Your task to perform on an android device: open chrome privacy settings Image 0: 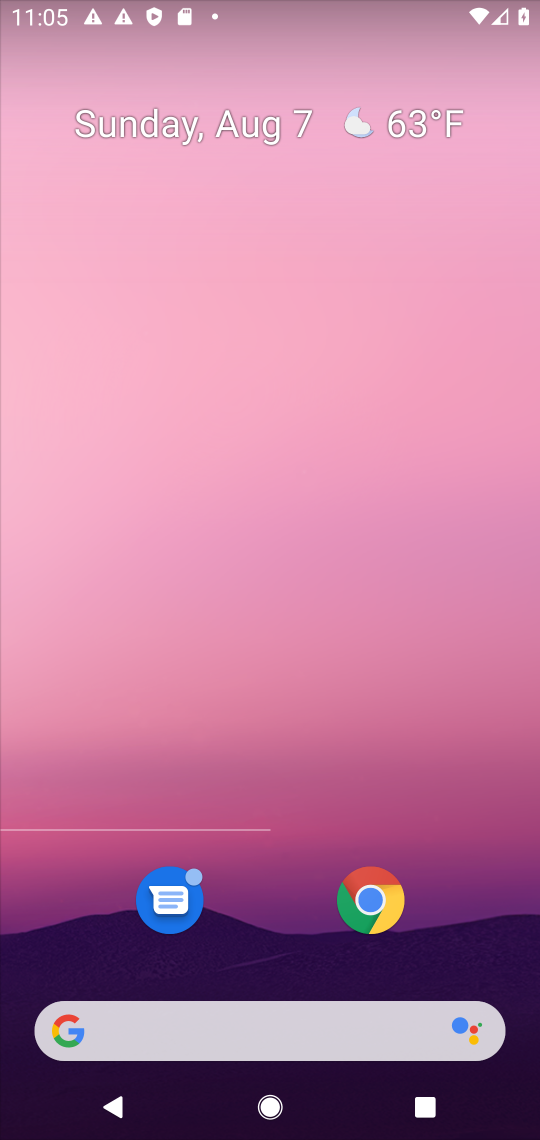
Step 0: press home button
Your task to perform on an android device: open chrome privacy settings Image 1: 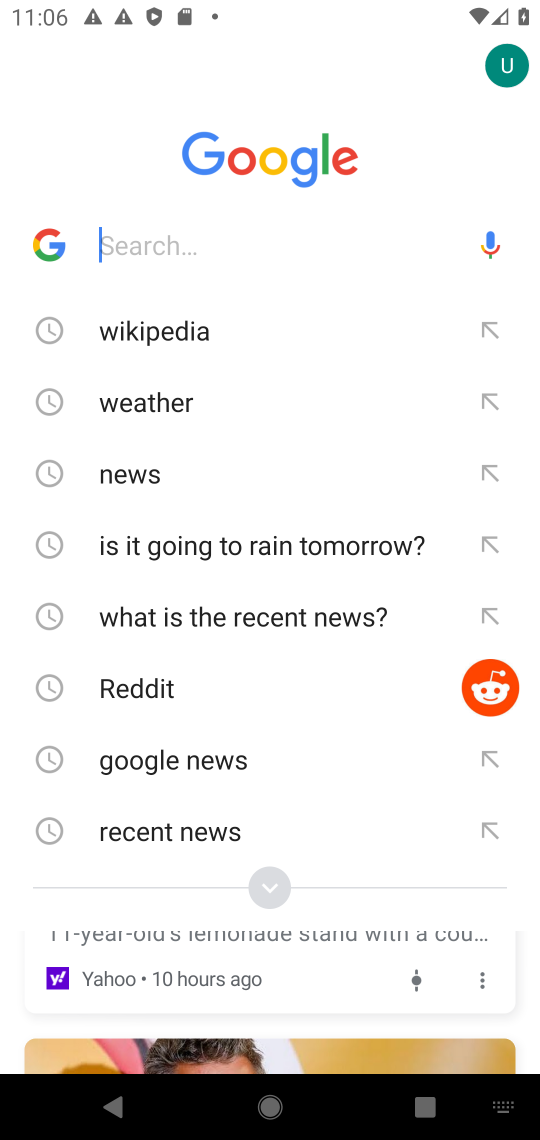
Step 1: press home button
Your task to perform on an android device: open chrome privacy settings Image 2: 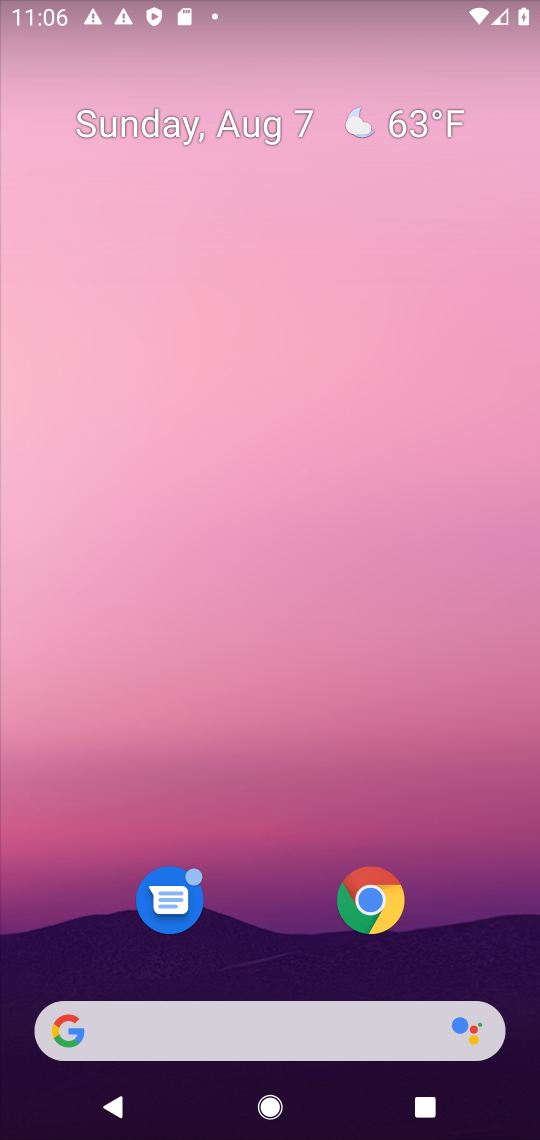
Step 2: click (371, 904)
Your task to perform on an android device: open chrome privacy settings Image 3: 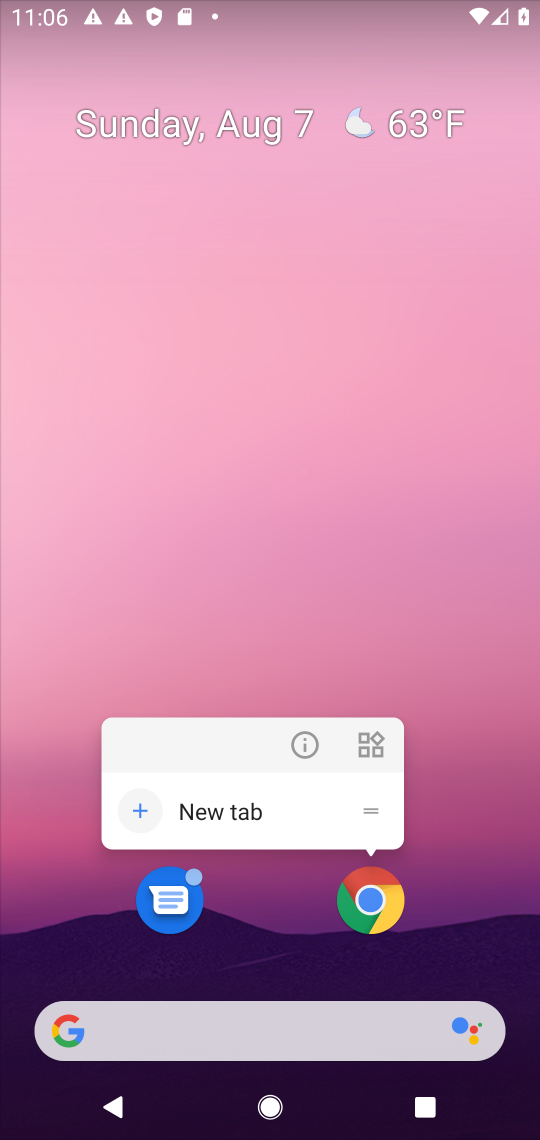
Step 3: click (431, 923)
Your task to perform on an android device: open chrome privacy settings Image 4: 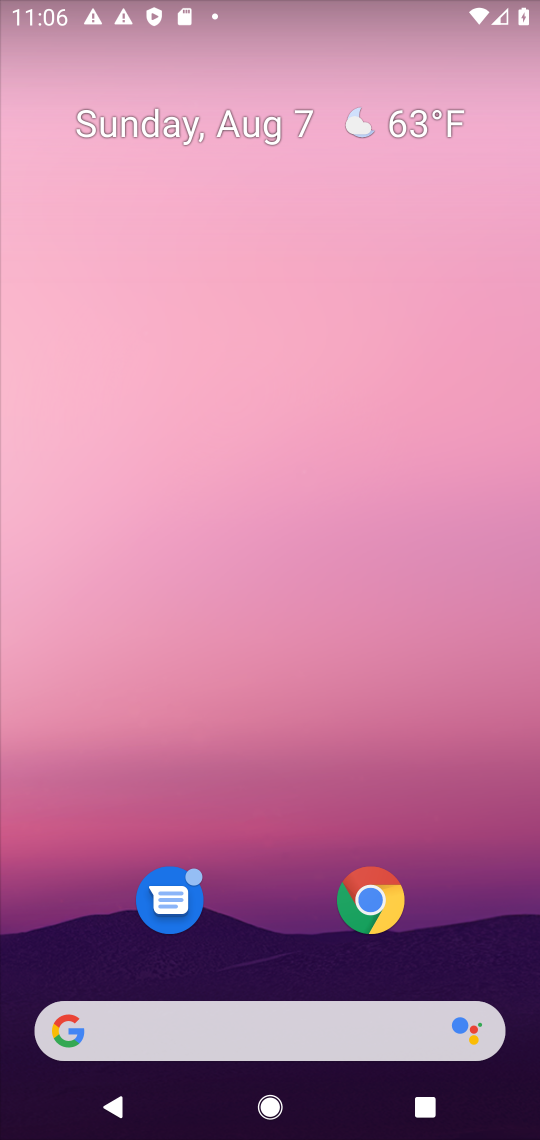
Step 4: drag from (455, 945) to (457, 192)
Your task to perform on an android device: open chrome privacy settings Image 5: 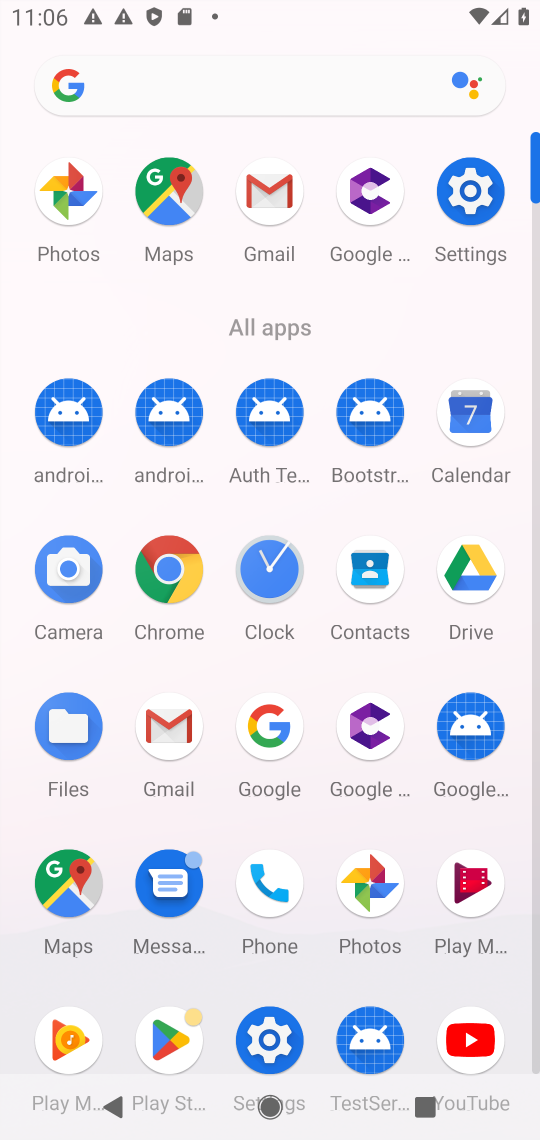
Step 5: click (164, 560)
Your task to perform on an android device: open chrome privacy settings Image 6: 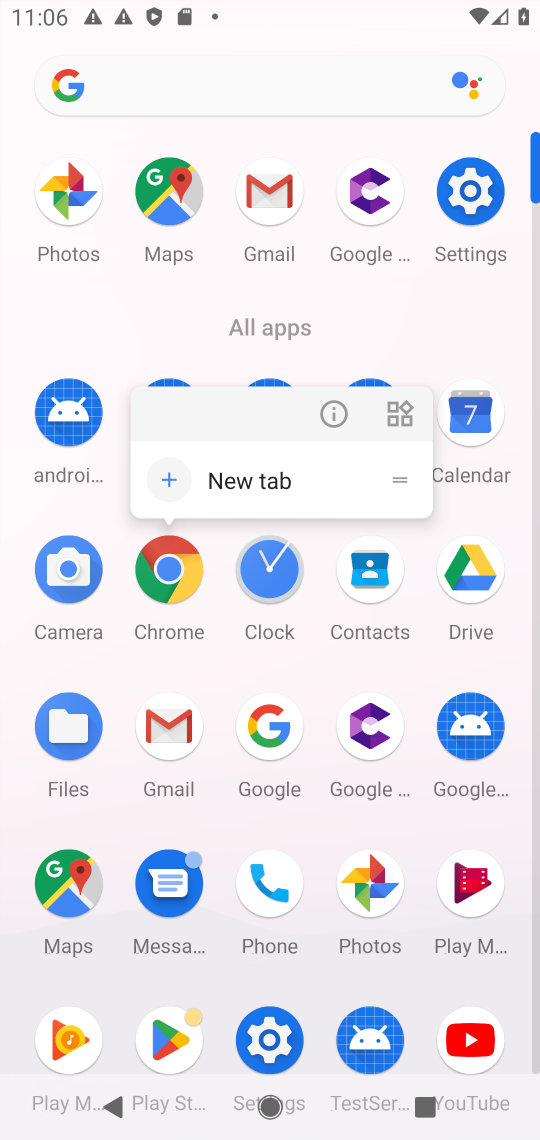
Step 6: click (167, 564)
Your task to perform on an android device: open chrome privacy settings Image 7: 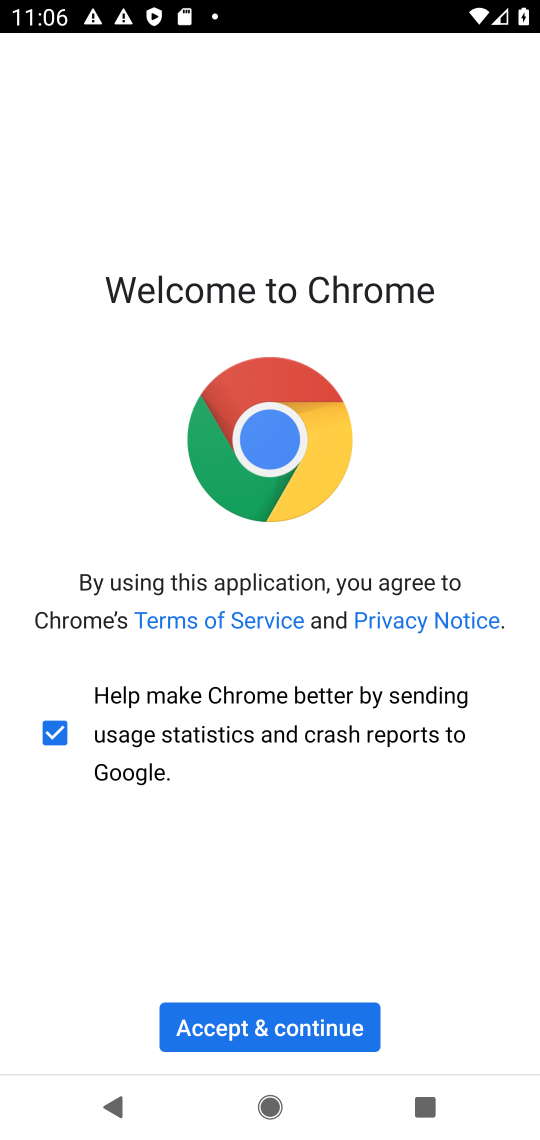
Step 7: click (262, 1024)
Your task to perform on an android device: open chrome privacy settings Image 8: 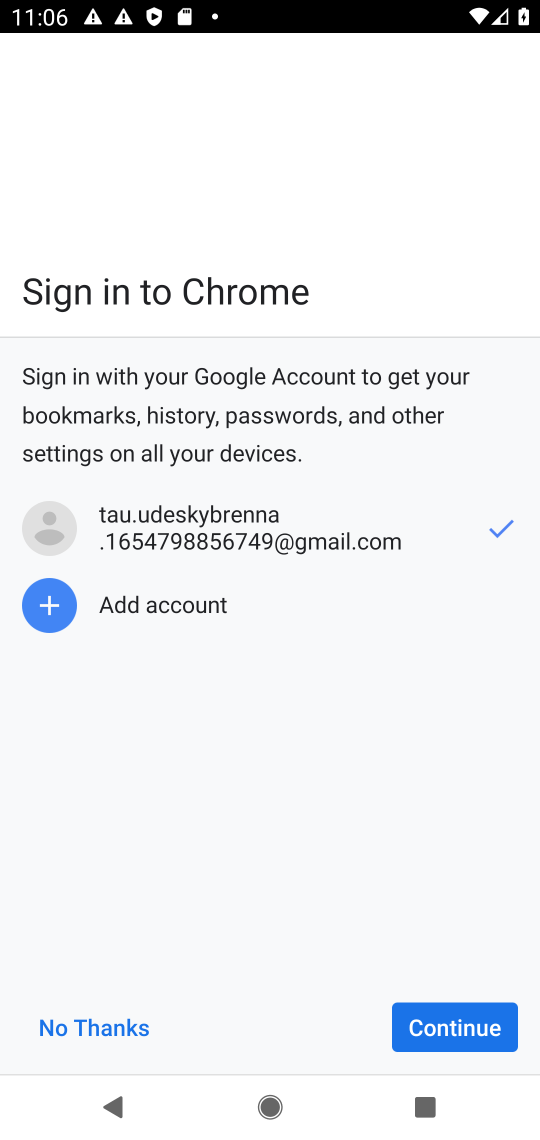
Step 8: click (467, 1023)
Your task to perform on an android device: open chrome privacy settings Image 9: 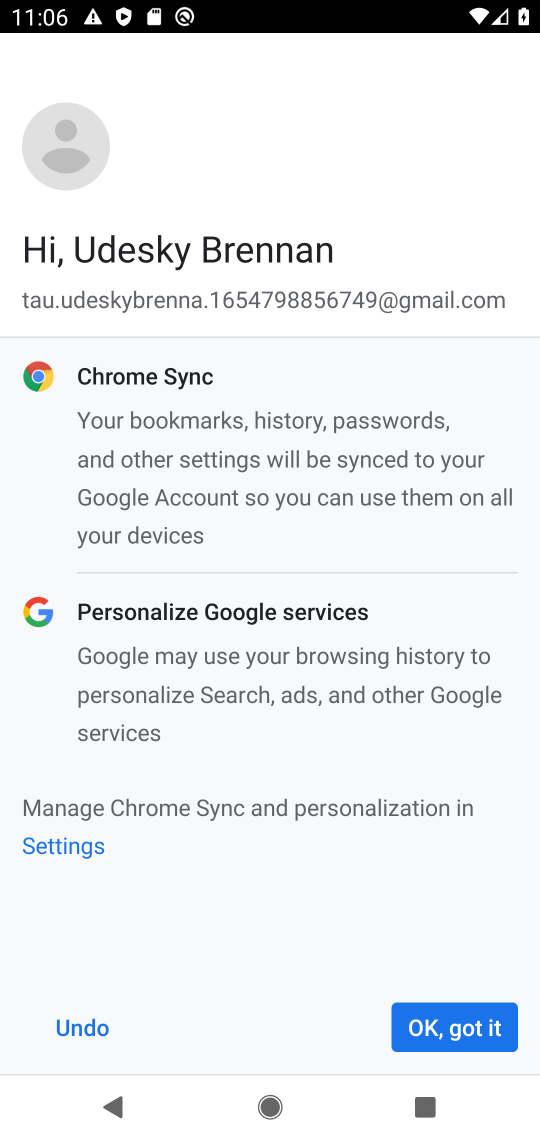
Step 9: click (460, 1028)
Your task to perform on an android device: open chrome privacy settings Image 10: 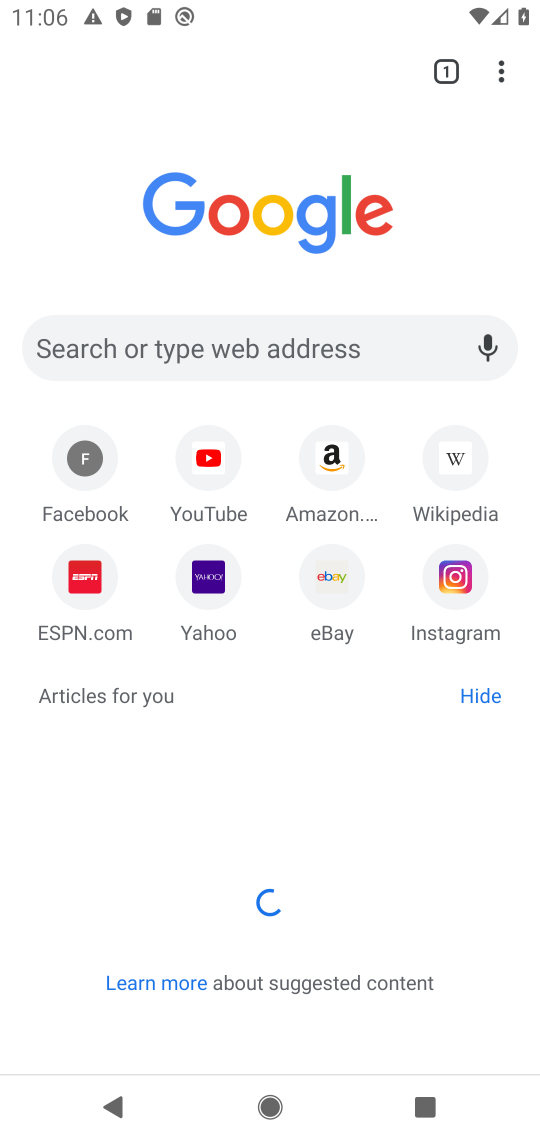
Step 10: click (499, 70)
Your task to perform on an android device: open chrome privacy settings Image 11: 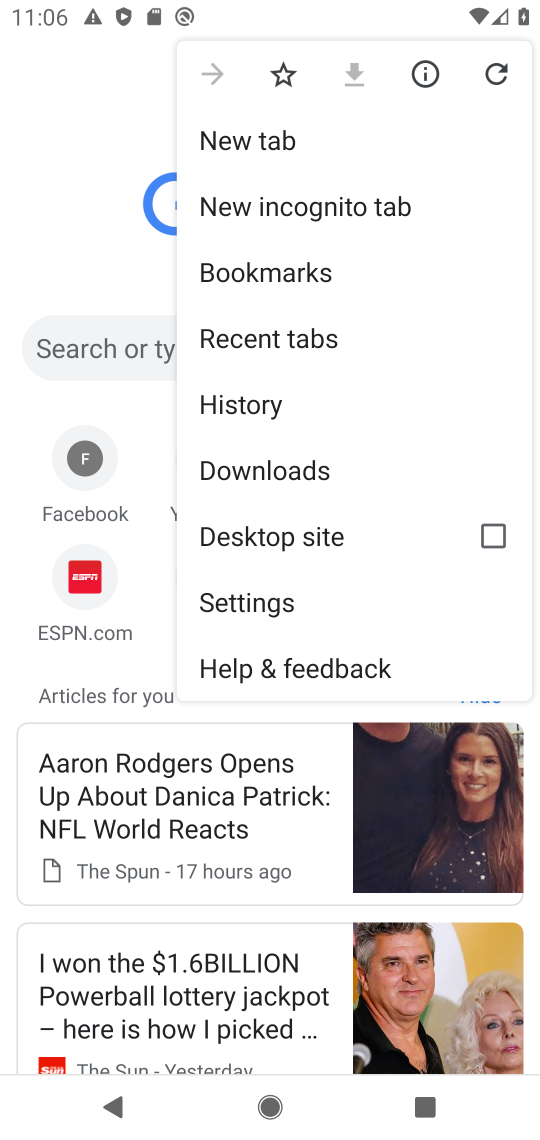
Step 11: click (307, 597)
Your task to perform on an android device: open chrome privacy settings Image 12: 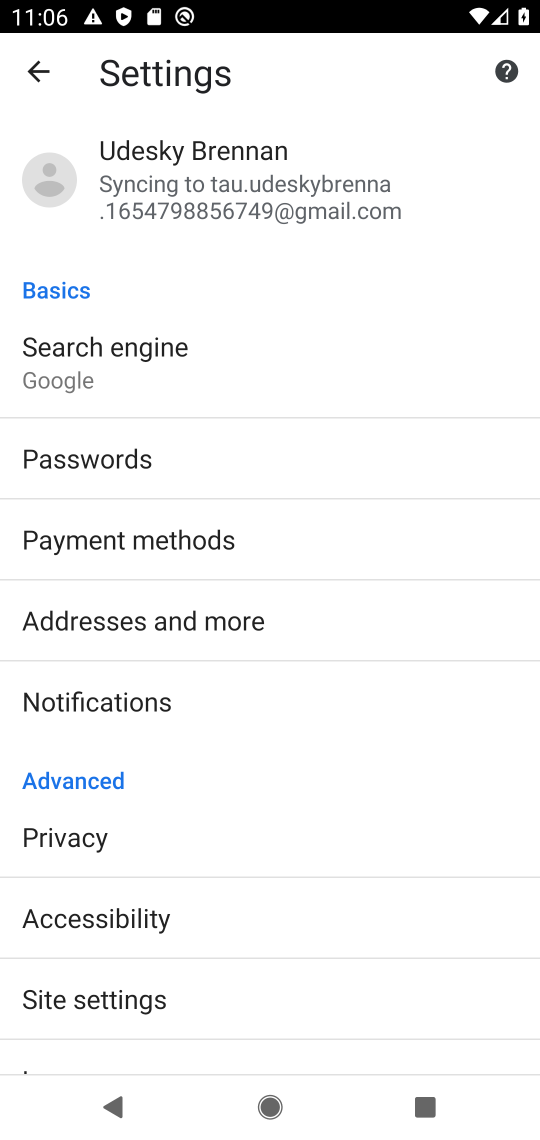
Step 12: click (130, 843)
Your task to perform on an android device: open chrome privacy settings Image 13: 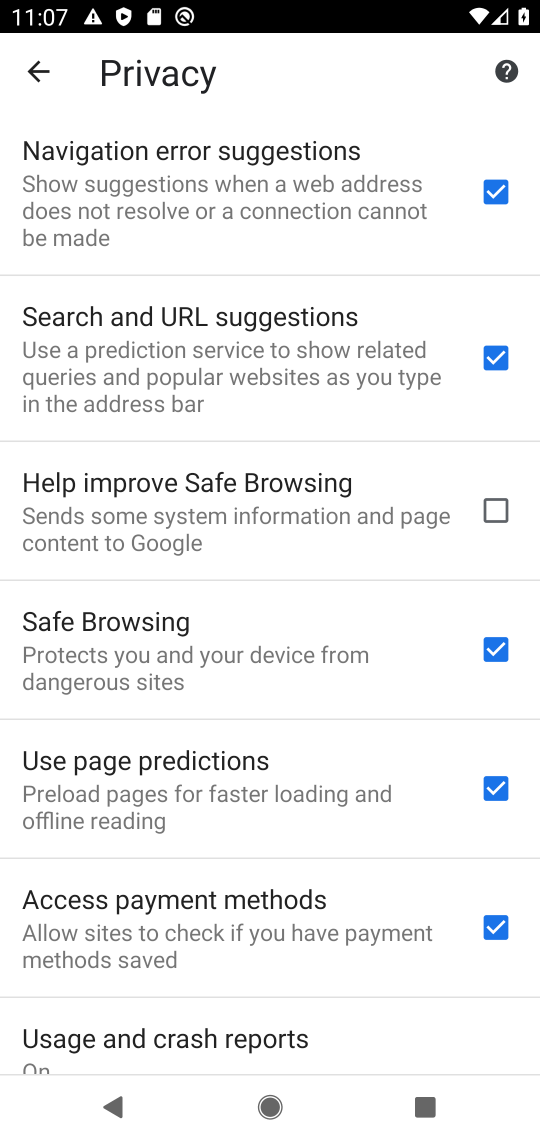
Step 13: task complete